Your task to perform on an android device: Go to privacy settings Image 0: 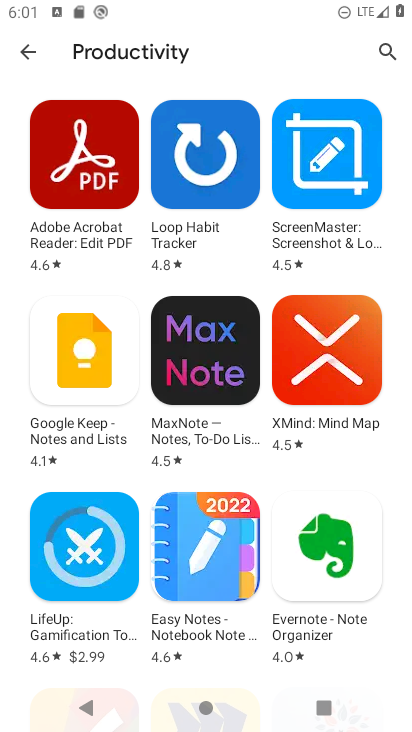
Step 0: press home button
Your task to perform on an android device: Go to privacy settings Image 1: 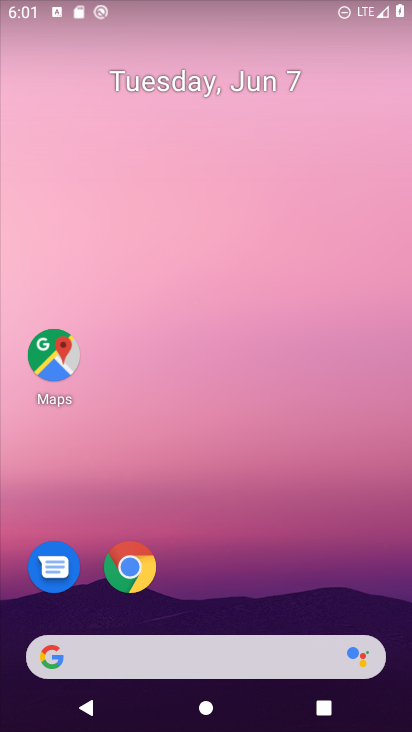
Step 1: drag from (206, 4) to (357, 730)
Your task to perform on an android device: Go to privacy settings Image 2: 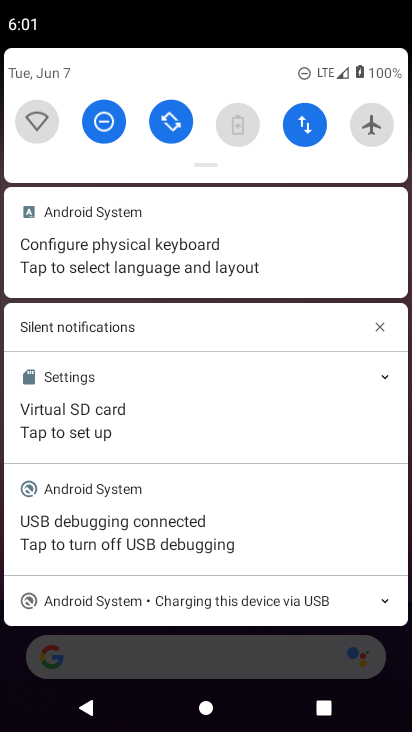
Step 2: drag from (292, 663) to (350, 0)
Your task to perform on an android device: Go to privacy settings Image 3: 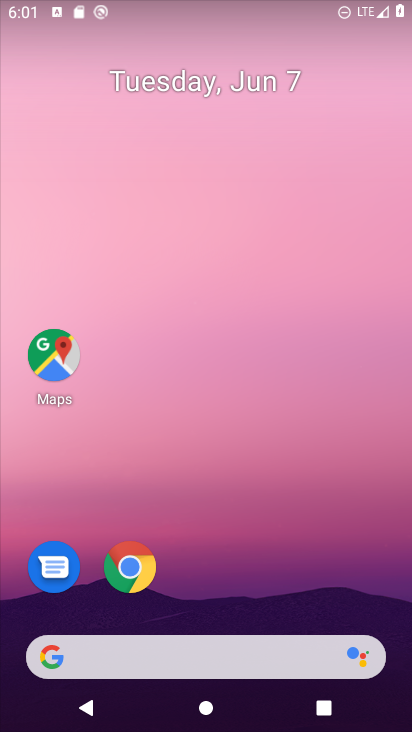
Step 3: drag from (222, 647) to (284, 7)
Your task to perform on an android device: Go to privacy settings Image 4: 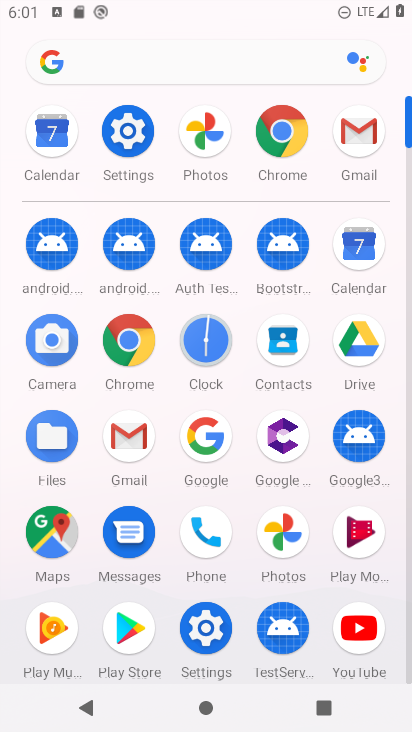
Step 4: click (144, 114)
Your task to perform on an android device: Go to privacy settings Image 5: 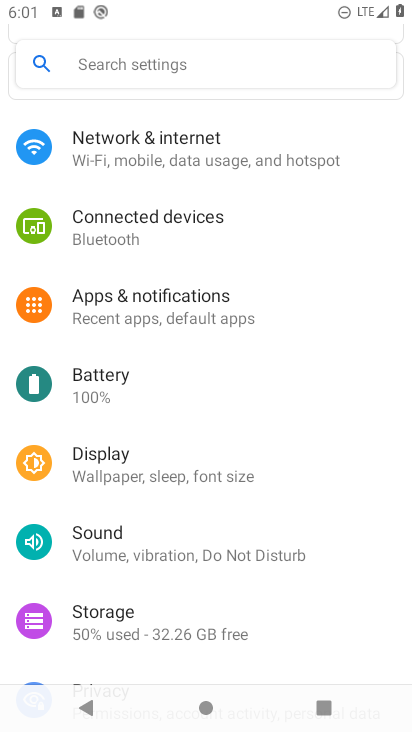
Step 5: drag from (202, 310) to (207, 622)
Your task to perform on an android device: Go to privacy settings Image 6: 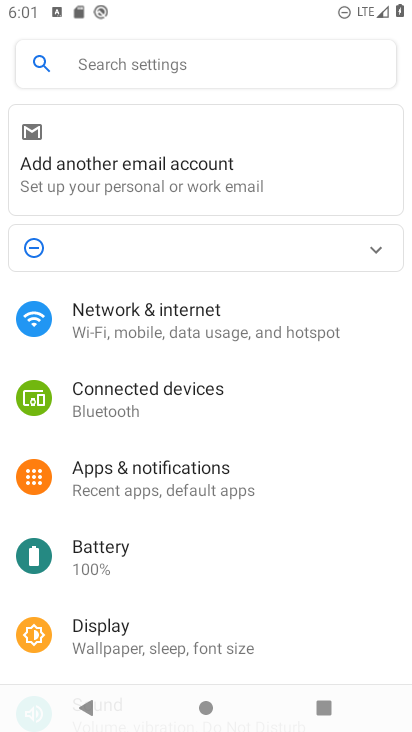
Step 6: drag from (220, 653) to (265, 260)
Your task to perform on an android device: Go to privacy settings Image 7: 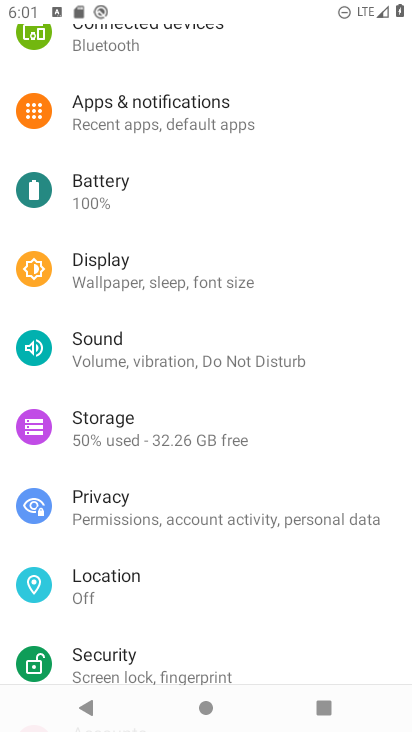
Step 7: click (141, 522)
Your task to perform on an android device: Go to privacy settings Image 8: 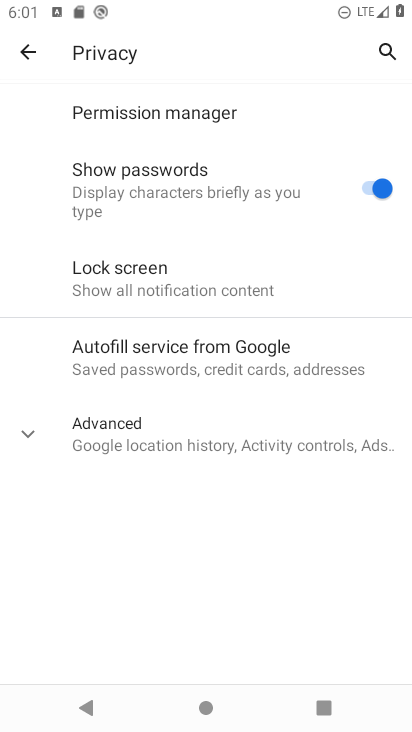
Step 8: task complete